Your task to perform on an android device: Turn off the flashlight Image 0: 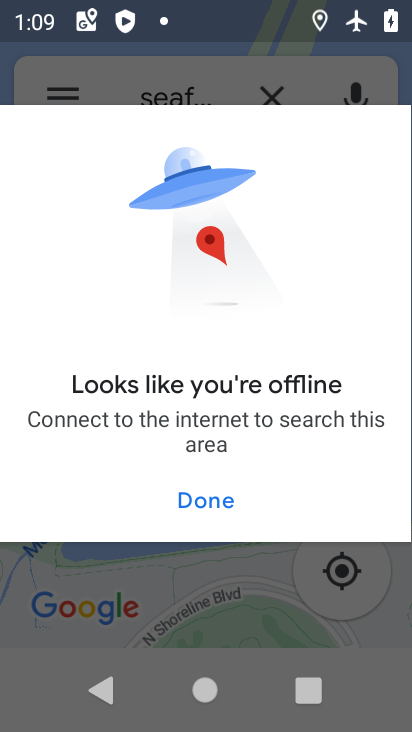
Step 0: drag from (249, 0) to (191, 640)
Your task to perform on an android device: Turn off the flashlight Image 1: 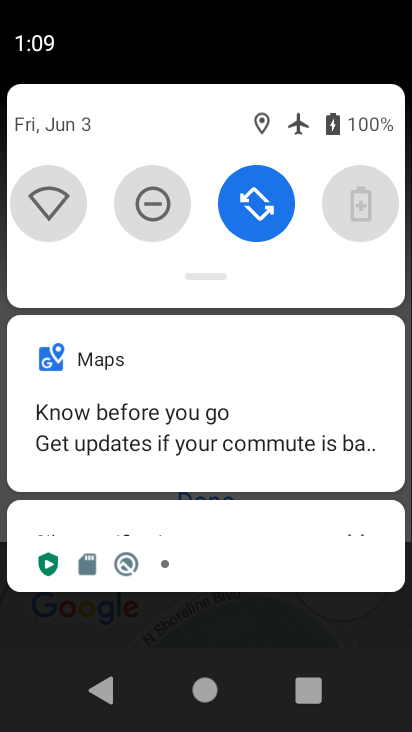
Step 1: task complete